Your task to perform on an android device: View the shopping cart on amazon. Image 0: 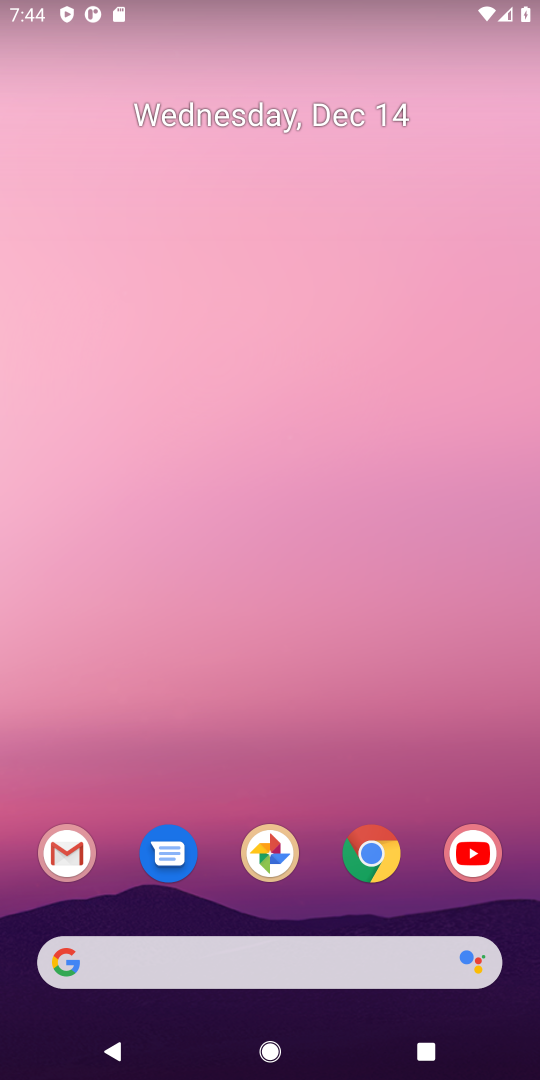
Step 0: click (366, 854)
Your task to perform on an android device: View the shopping cart on amazon. Image 1: 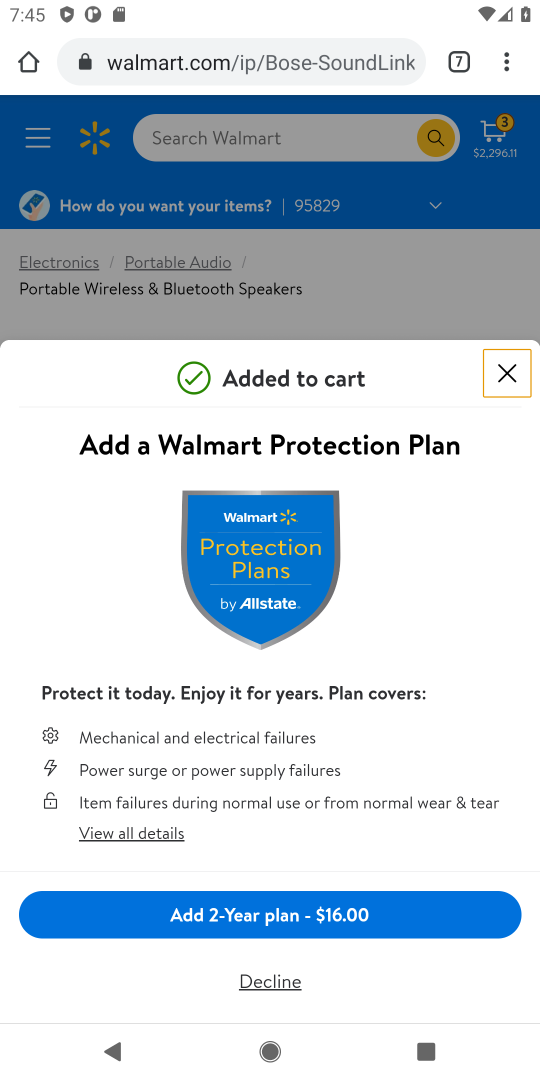
Step 1: click (454, 67)
Your task to perform on an android device: View the shopping cart on amazon. Image 2: 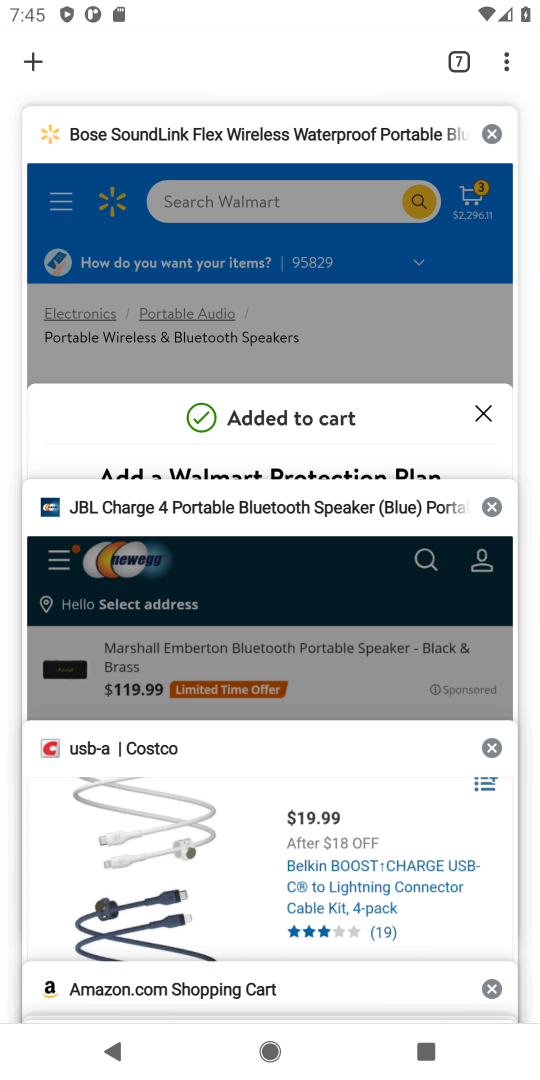
Step 2: click (103, 989)
Your task to perform on an android device: View the shopping cart on amazon. Image 3: 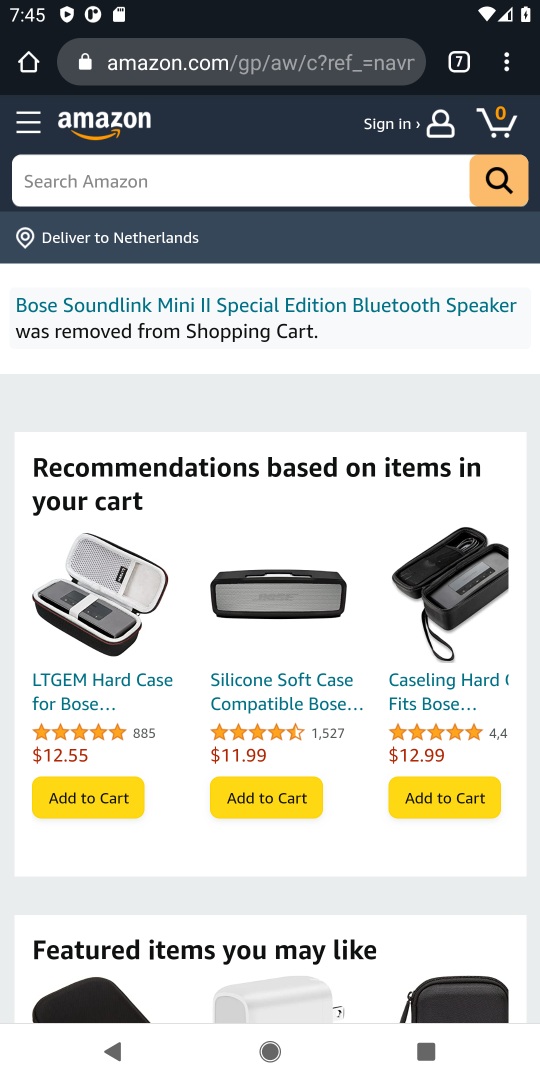
Step 3: click (494, 117)
Your task to perform on an android device: View the shopping cart on amazon. Image 4: 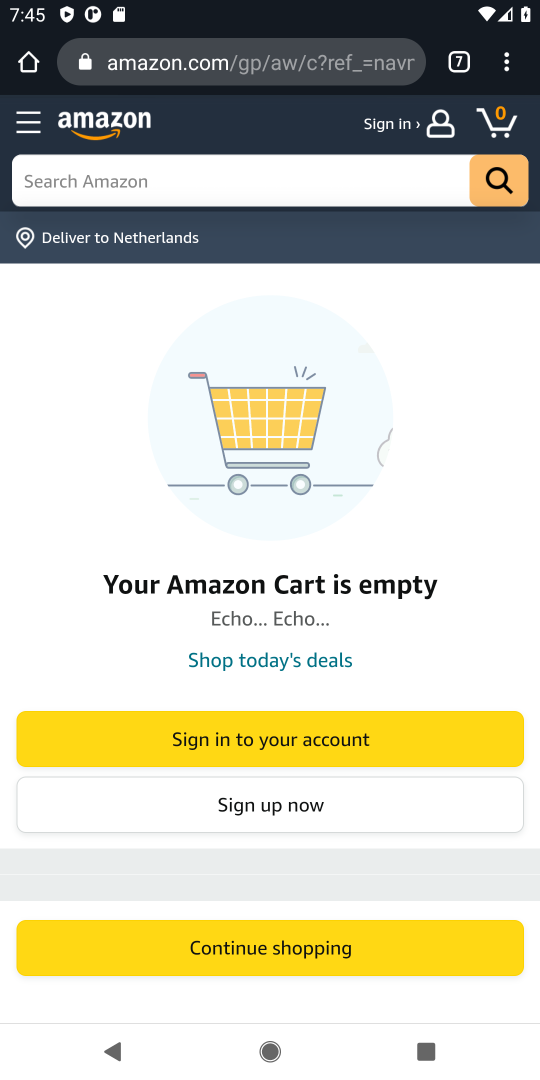
Step 4: task complete